Your task to perform on an android device: set the stopwatch Image 0: 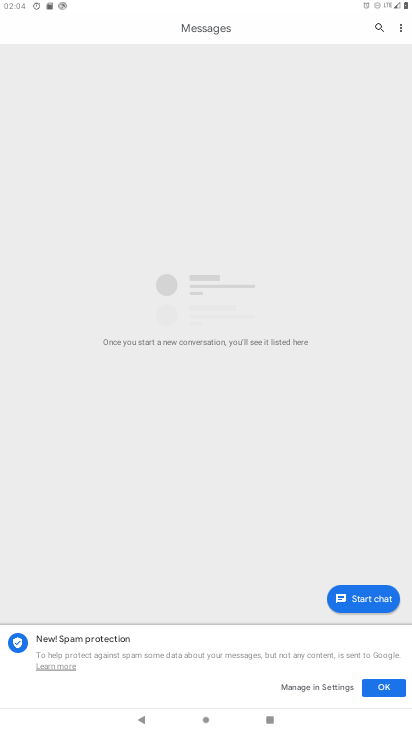
Step 0: press home button
Your task to perform on an android device: set the stopwatch Image 1: 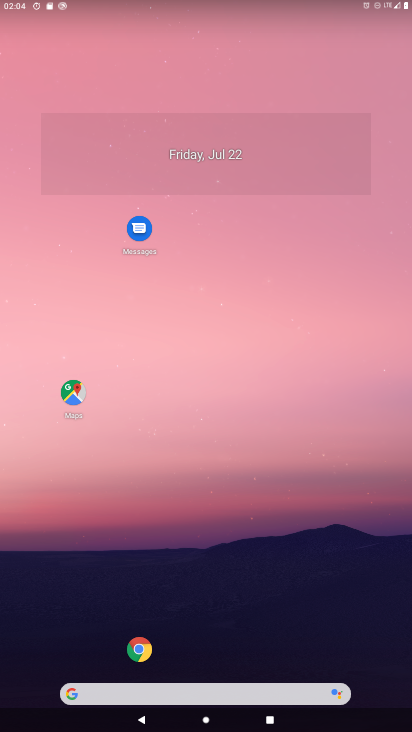
Step 1: drag from (32, 657) to (263, 130)
Your task to perform on an android device: set the stopwatch Image 2: 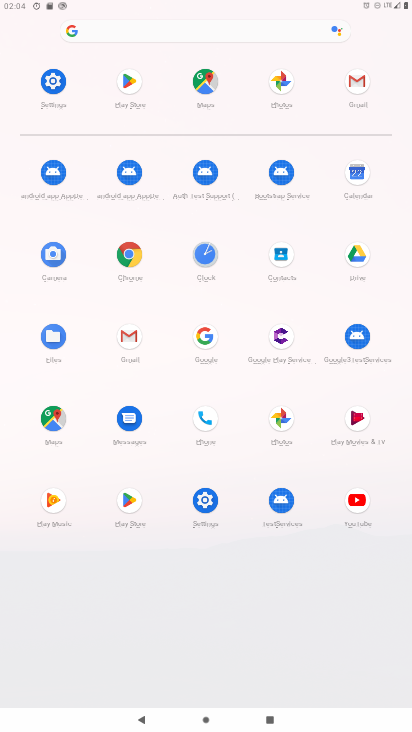
Step 2: click (212, 255)
Your task to perform on an android device: set the stopwatch Image 3: 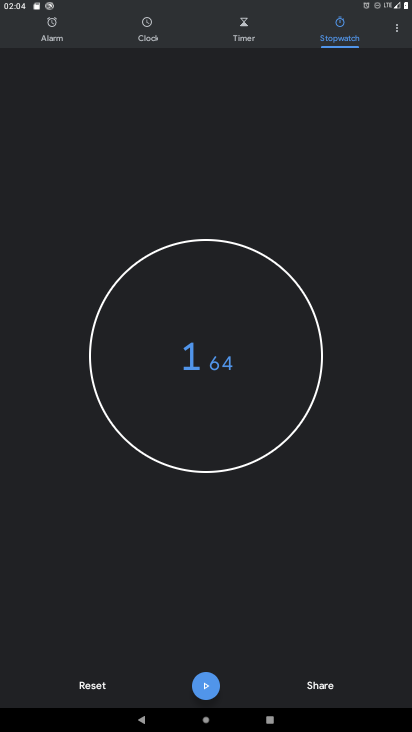
Step 3: click (208, 360)
Your task to perform on an android device: set the stopwatch Image 4: 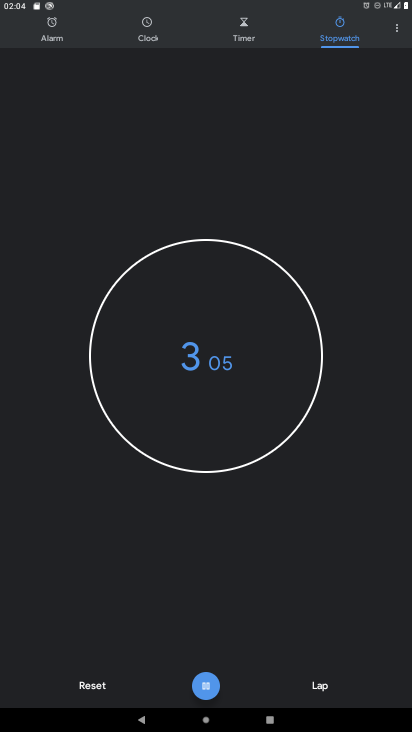
Step 4: click (200, 369)
Your task to perform on an android device: set the stopwatch Image 5: 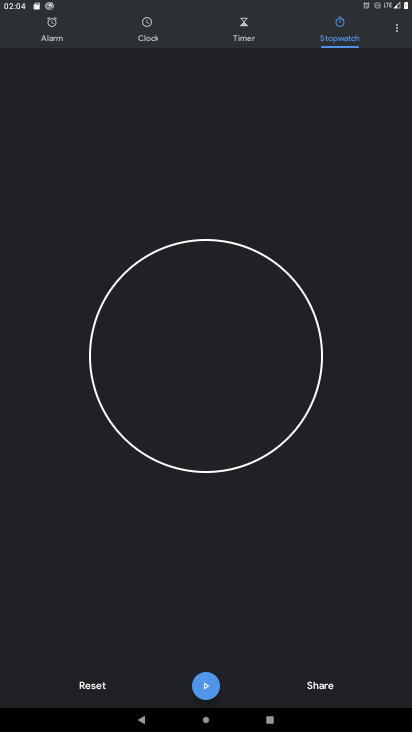
Step 5: task complete